Your task to perform on an android device: Search for Mexican restaurants on Maps Image 0: 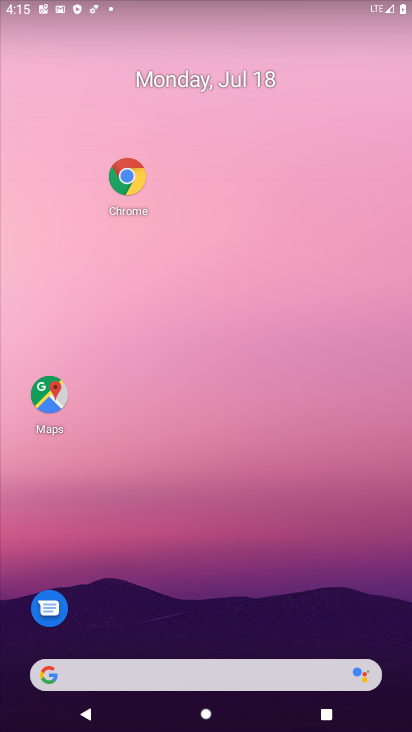
Step 0: drag from (191, 654) to (246, 198)
Your task to perform on an android device: Search for Mexican restaurants on Maps Image 1: 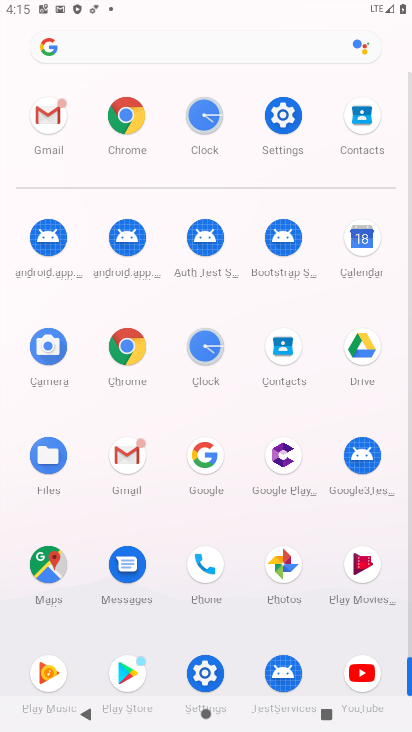
Step 1: click (51, 570)
Your task to perform on an android device: Search for Mexican restaurants on Maps Image 2: 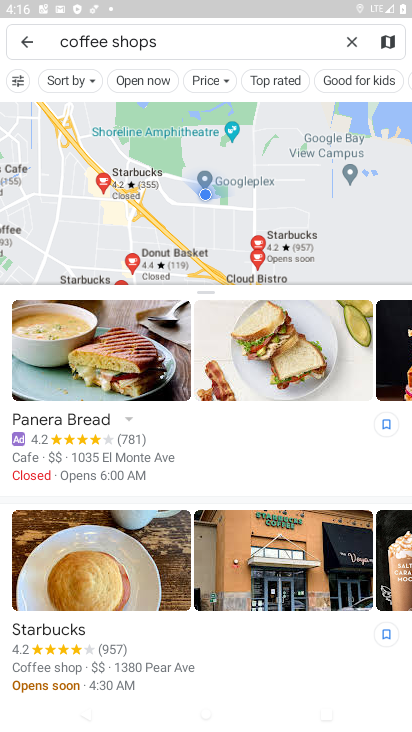
Step 2: click (349, 46)
Your task to perform on an android device: Search for Mexican restaurants on Maps Image 3: 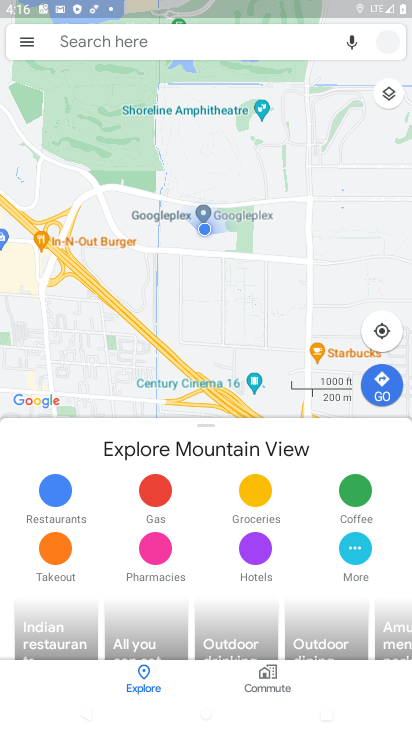
Step 3: click (249, 34)
Your task to perform on an android device: Search for Mexican restaurants on Maps Image 4: 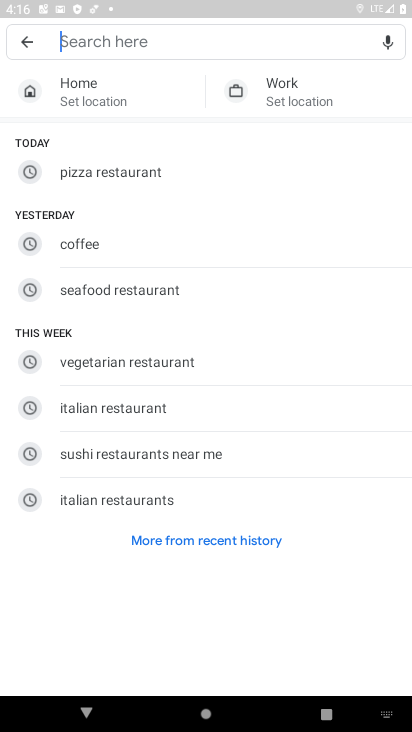
Step 4: type "mexican restaurants"
Your task to perform on an android device: Search for Mexican restaurants on Maps Image 5: 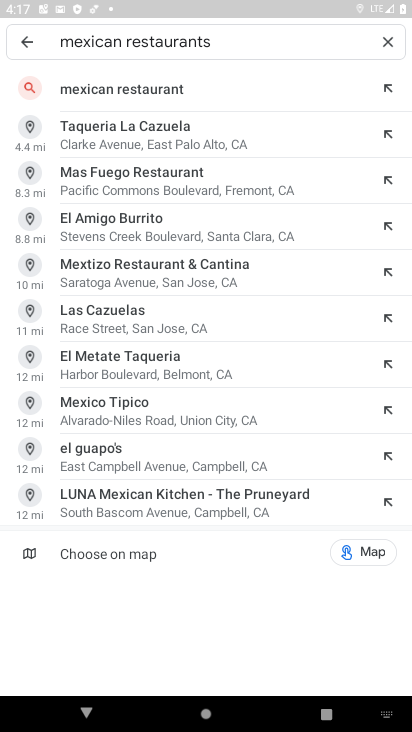
Step 5: click (224, 88)
Your task to perform on an android device: Search for Mexican restaurants on Maps Image 6: 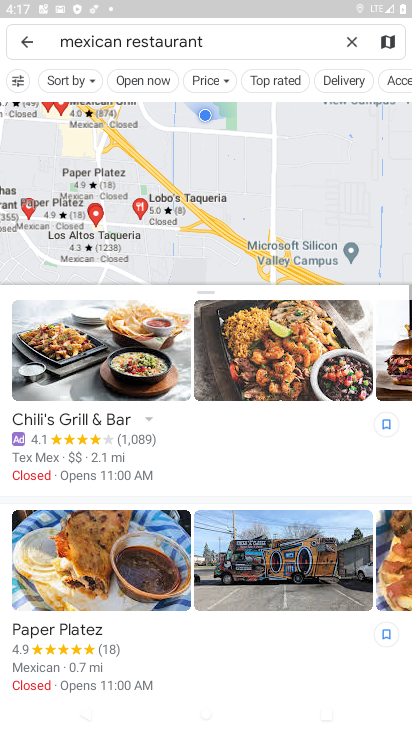
Step 6: task complete